Your task to perform on an android device: Go to Amazon Image 0: 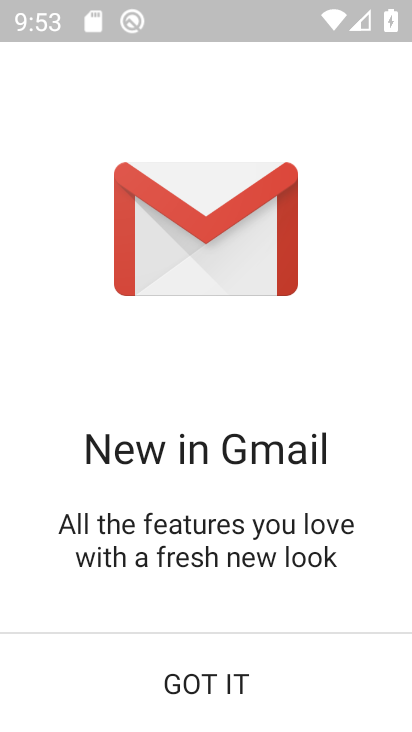
Step 0: click (221, 665)
Your task to perform on an android device: Go to Amazon Image 1: 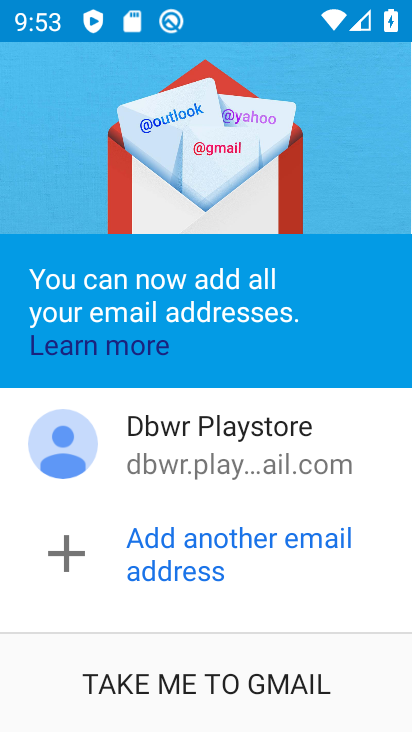
Step 1: click (235, 682)
Your task to perform on an android device: Go to Amazon Image 2: 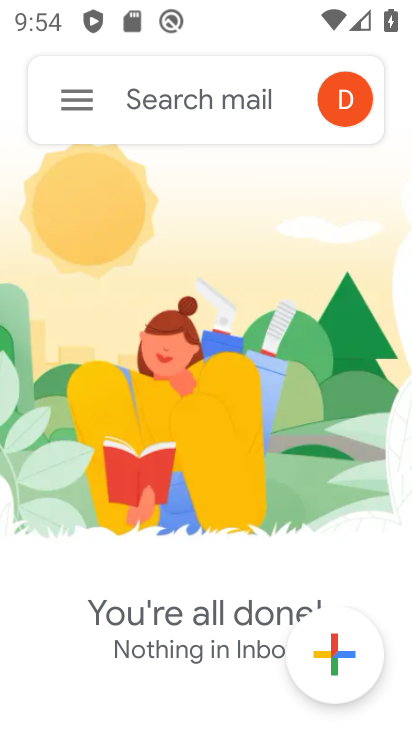
Step 2: press home button
Your task to perform on an android device: Go to Amazon Image 3: 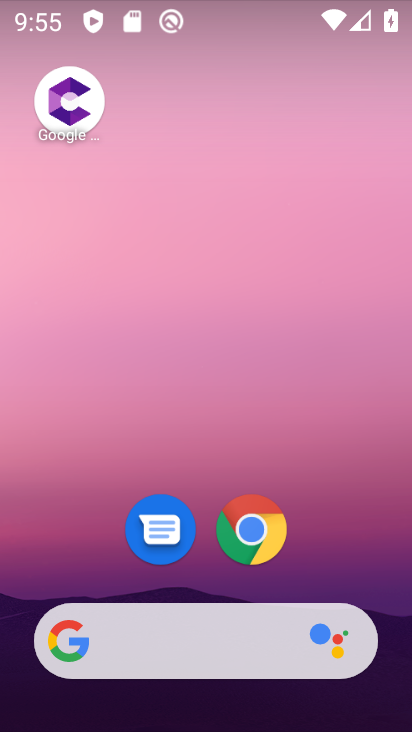
Step 3: click (243, 528)
Your task to perform on an android device: Go to Amazon Image 4: 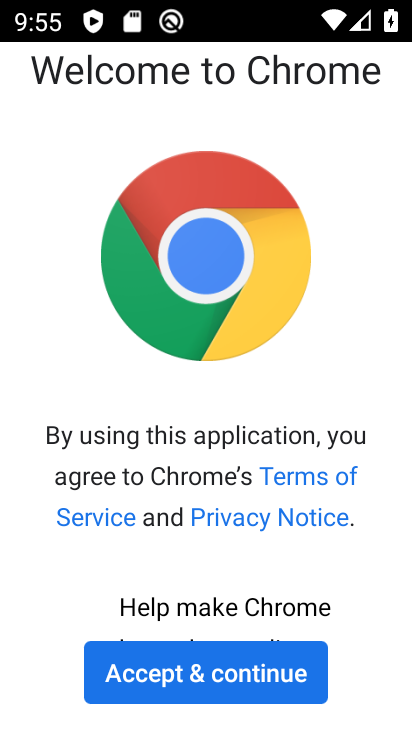
Step 4: click (179, 679)
Your task to perform on an android device: Go to Amazon Image 5: 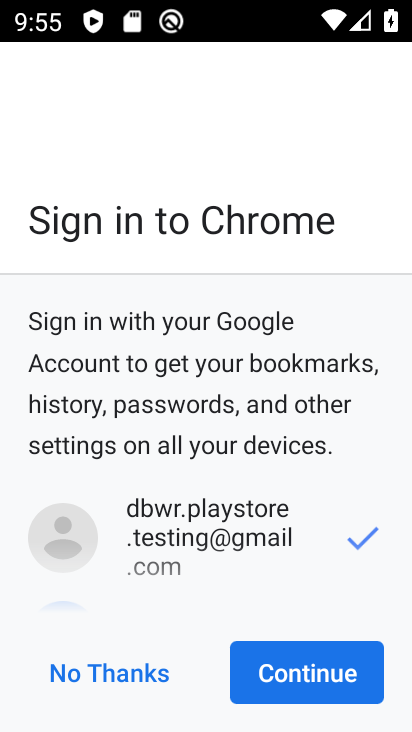
Step 5: click (99, 670)
Your task to perform on an android device: Go to Amazon Image 6: 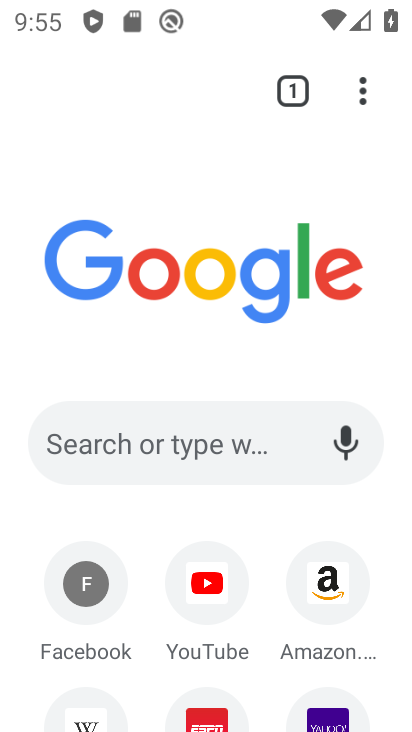
Step 6: click (349, 567)
Your task to perform on an android device: Go to Amazon Image 7: 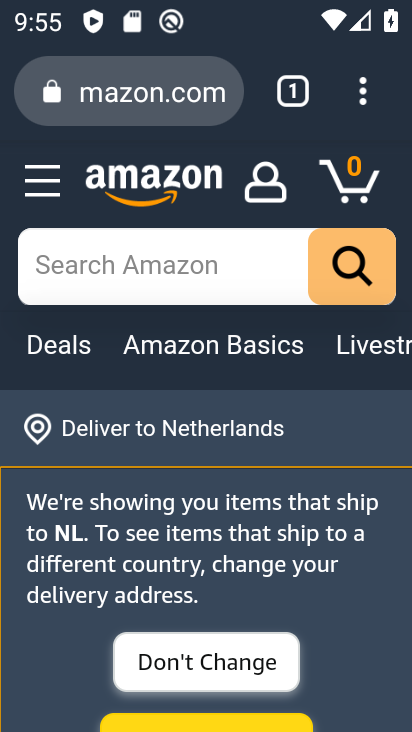
Step 7: task complete